Your task to perform on an android device: Search for Mexican restaurants on Maps Image 0: 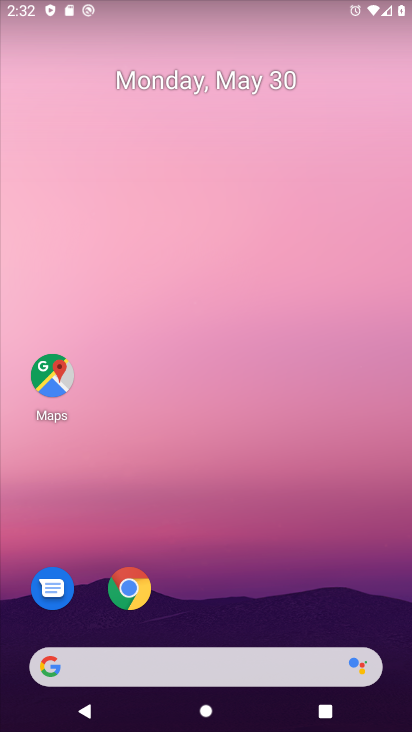
Step 0: press home button
Your task to perform on an android device: Search for Mexican restaurants on Maps Image 1: 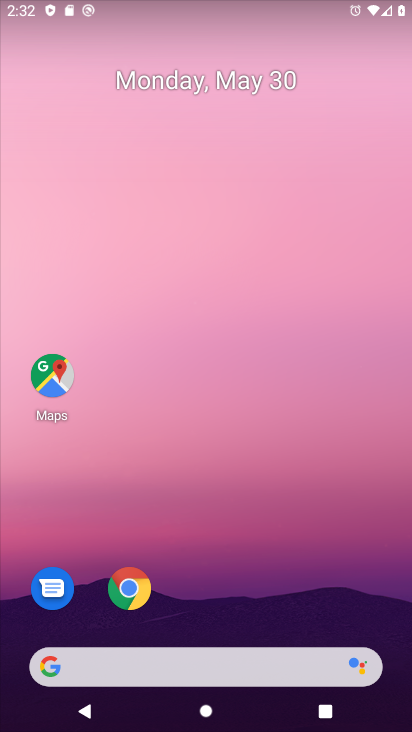
Step 1: click (50, 377)
Your task to perform on an android device: Search for Mexican restaurants on Maps Image 2: 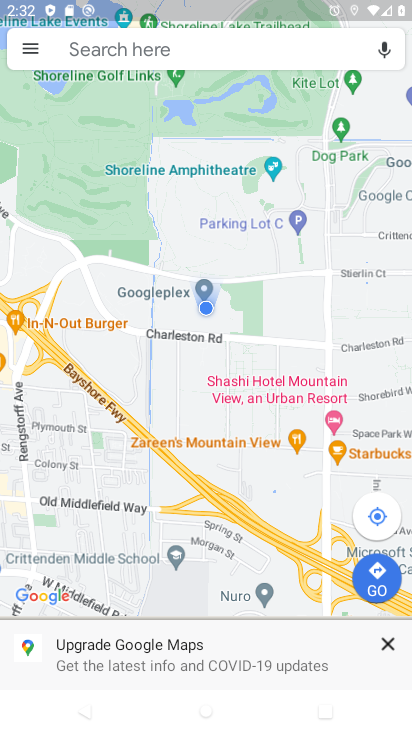
Step 2: click (27, 40)
Your task to perform on an android device: Search for Mexican restaurants on Maps Image 3: 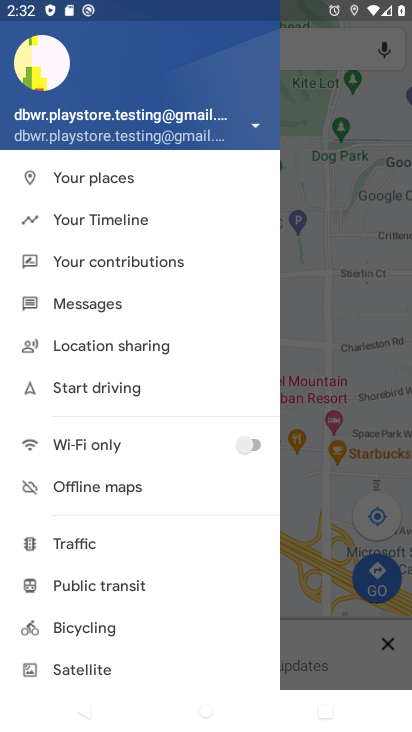
Step 3: click (376, 152)
Your task to perform on an android device: Search for Mexican restaurants on Maps Image 4: 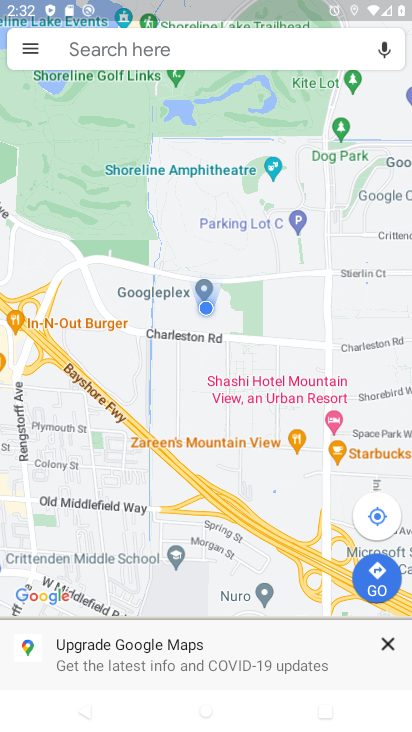
Step 4: click (238, 50)
Your task to perform on an android device: Search for Mexican restaurants on Maps Image 5: 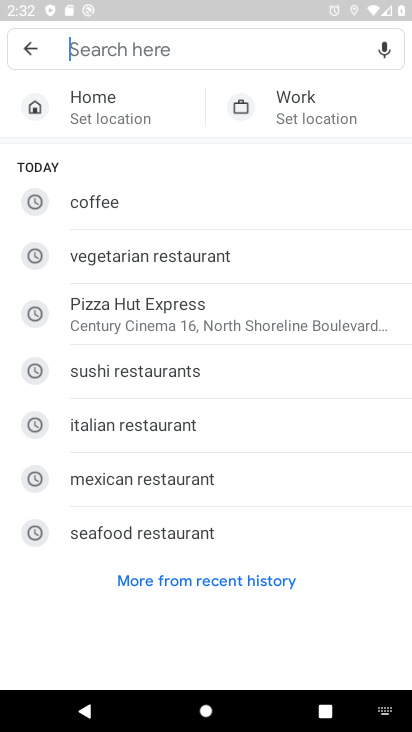
Step 5: click (148, 470)
Your task to perform on an android device: Search for Mexican restaurants on Maps Image 6: 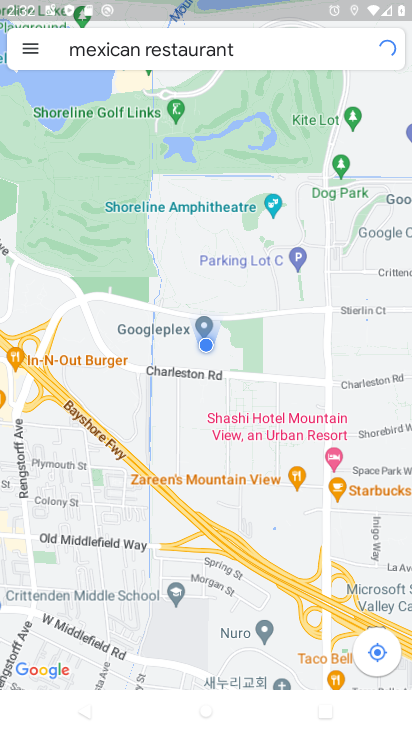
Step 6: task complete